Your task to perform on an android device: see tabs open on other devices in the chrome app Image 0: 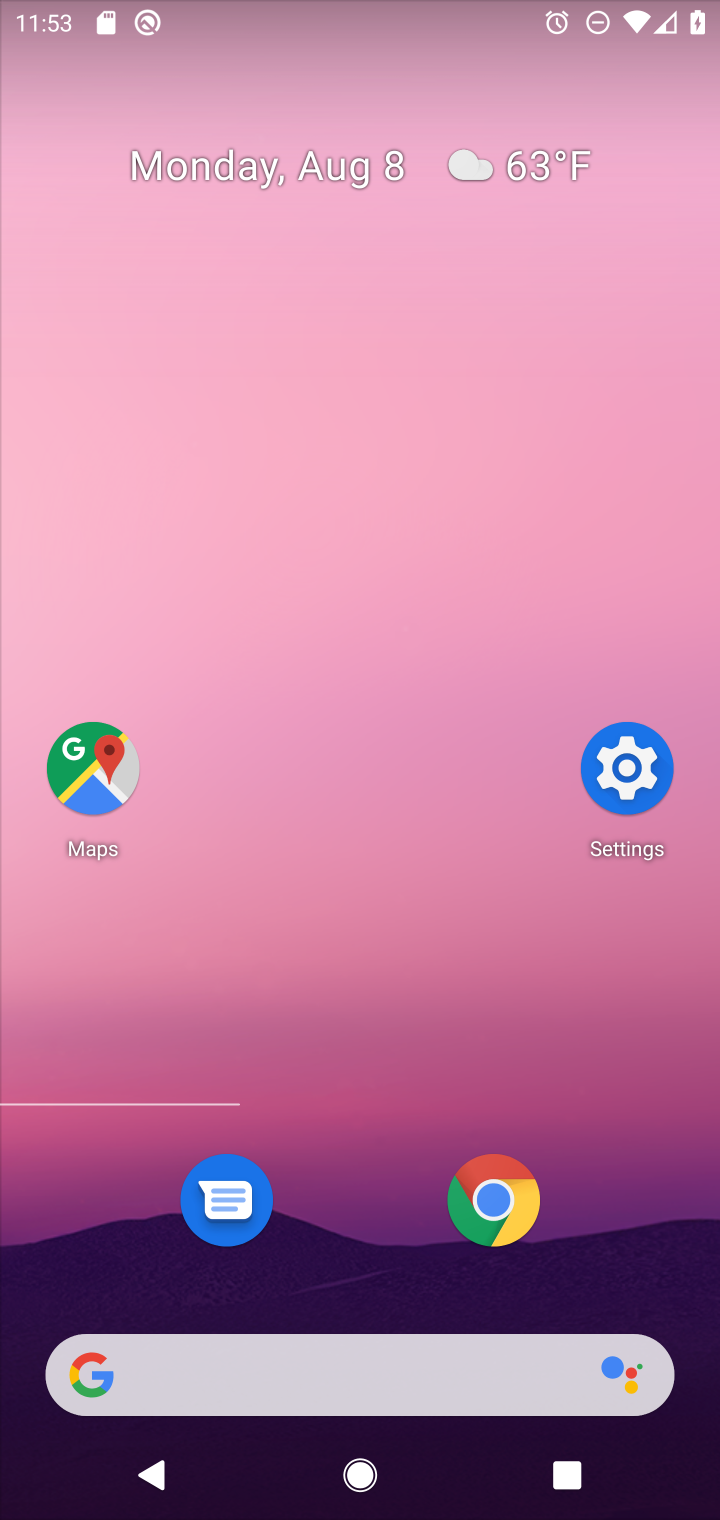
Step 0: press home button
Your task to perform on an android device: see tabs open on other devices in the chrome app Image 1: 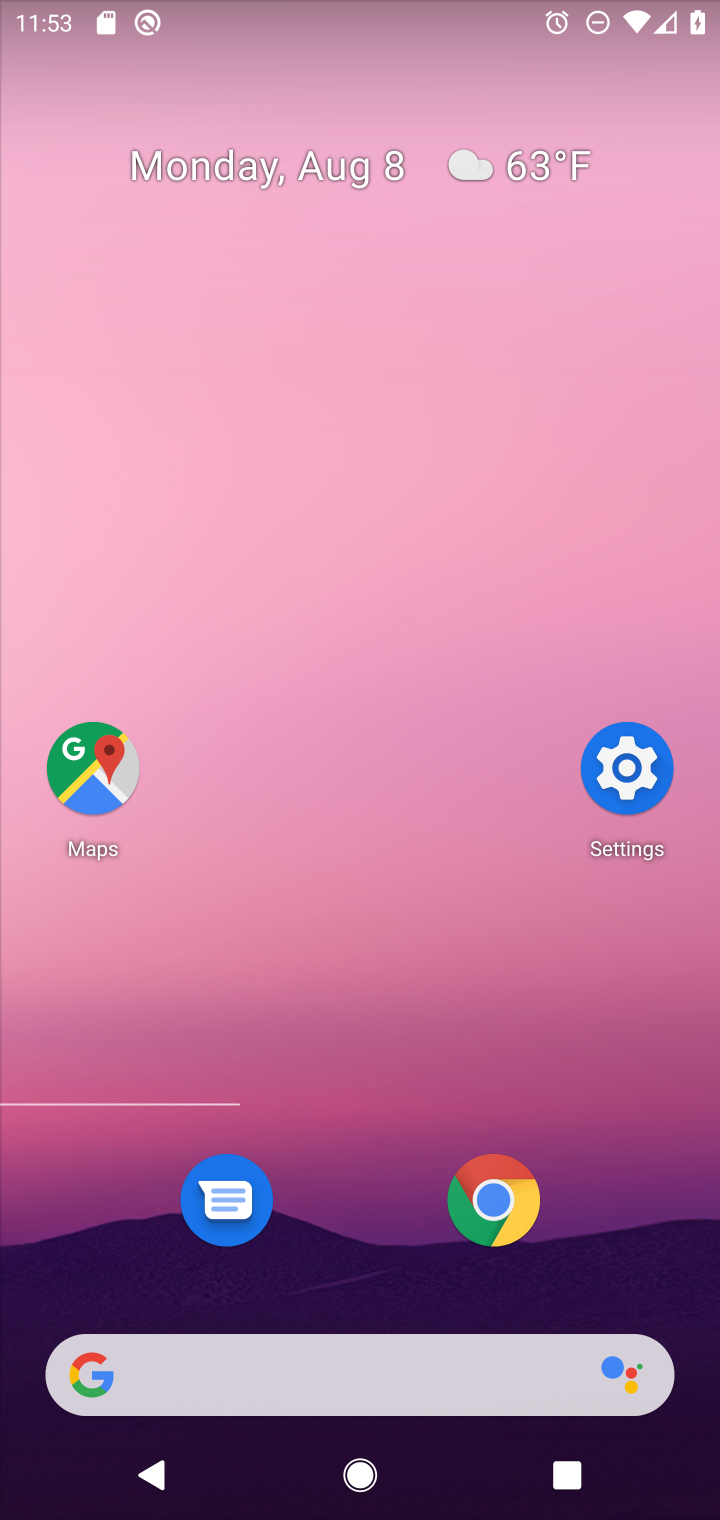
Step 1: click (489, 1177)
Your task to perform on an android device: see tabs open on other devices in the chrome app Image 2: 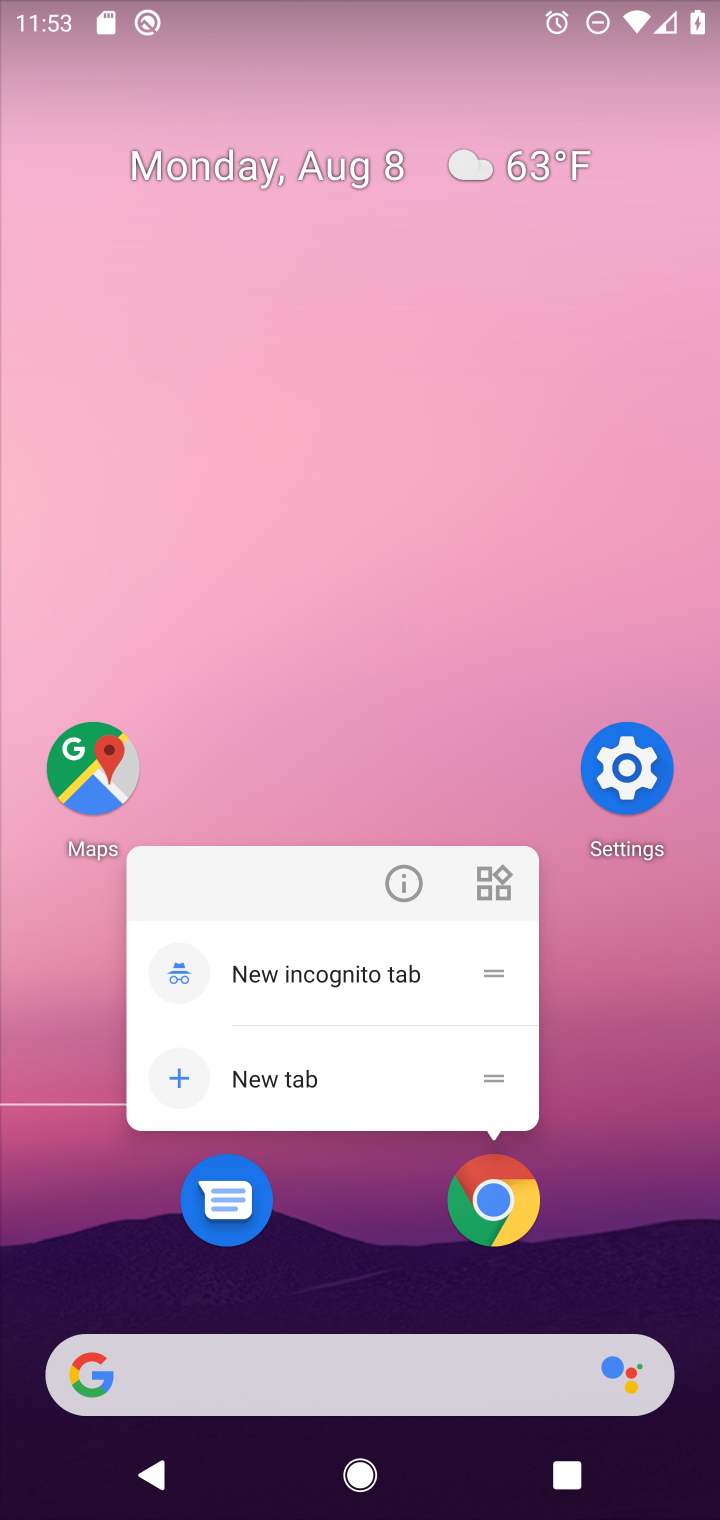
Step 2: click (489, 1196)
Your task to perform on an android device: see tabs open on other devices in the chrome app Image 3: 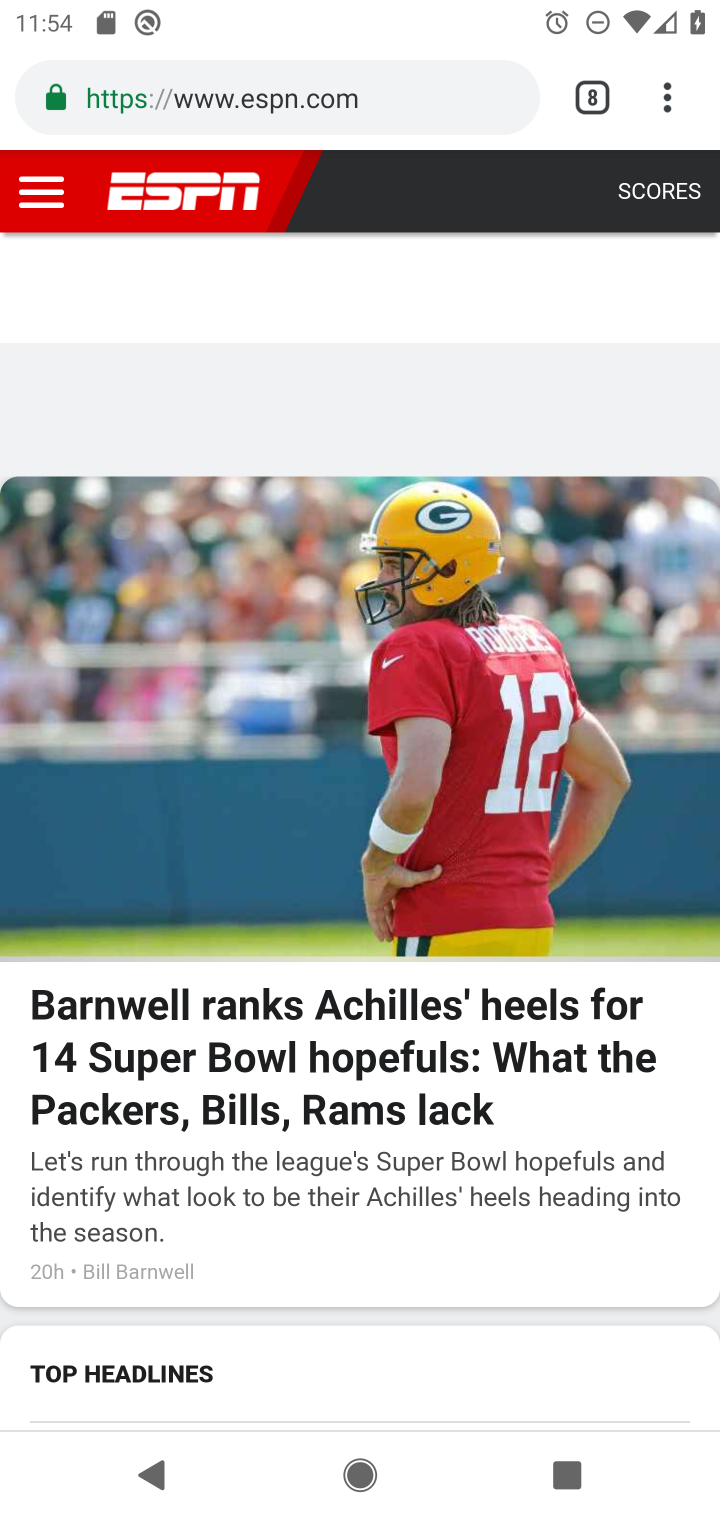
Step 3: task complete